Your task to perform on an android device: check the backup settings in the google photos Image 0: 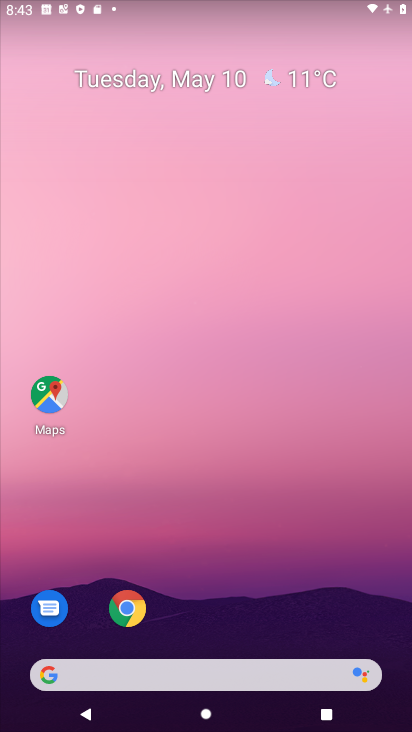
Step 0: press home button
Your task to perform on an android device: check the backup settings in the google photos Image 1: 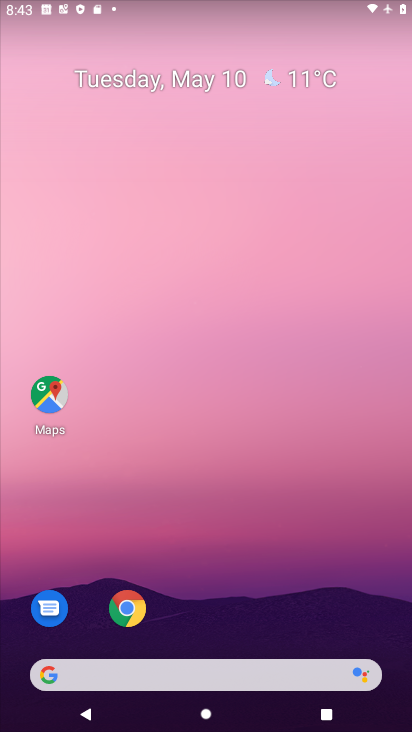
Step 1: drag from (129, 680) to (274, 284)
Your task to perform on an android device: check the backup settings in the google photos Image 2: 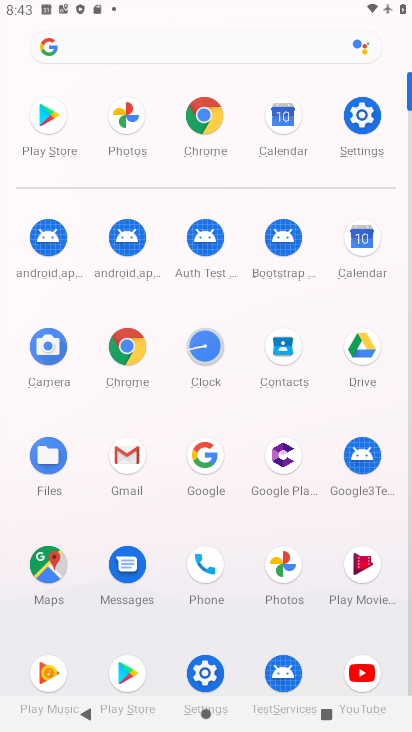
Step 2: click (284, 568)
Your task to perform on an android device: check the backup settings in the google photos Image 3: 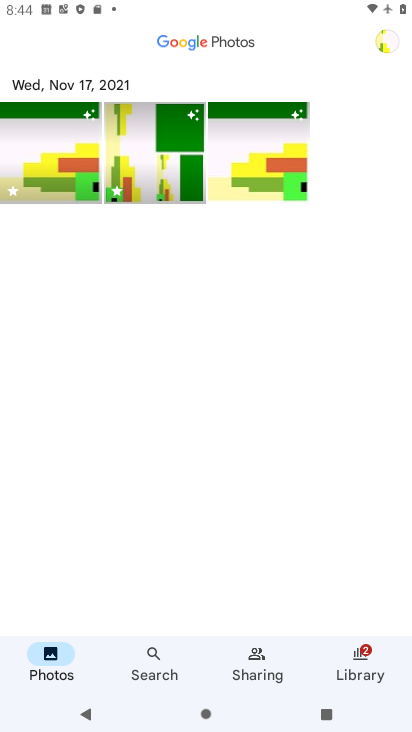
Step 3: click (389, 38)
Your task to perform on an android device: check the backup settings in the google photos Image 4: 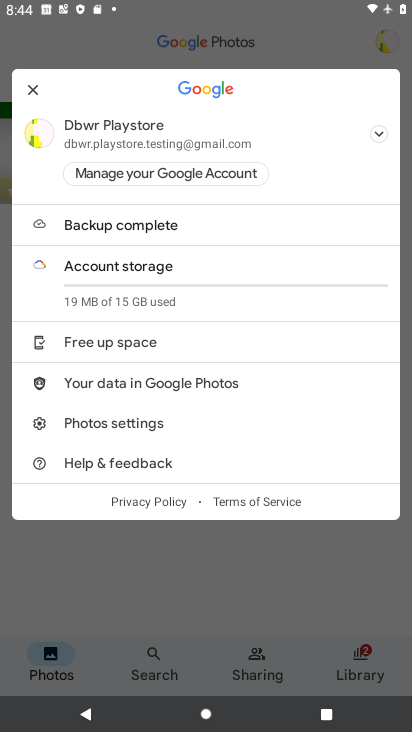
Step 4: click (97, 429)
Your task to perform on an android device: check the backup settings in the google photos Image 5: 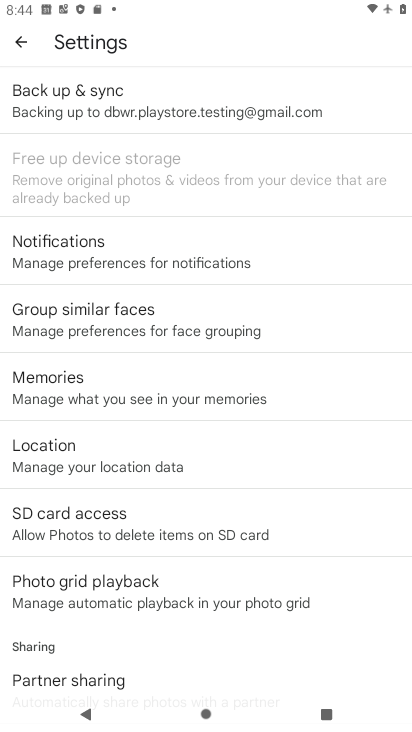
Step 5: click (253, 103)
Your task to perform on an android device: check the backup settings in the google photos Image 6: 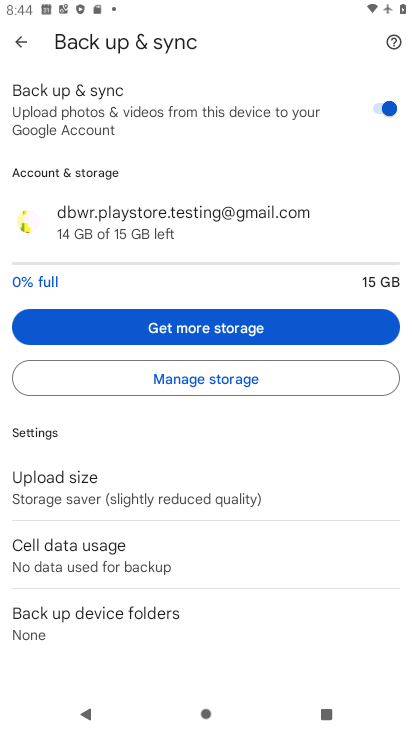
Step 6: task complete